Your task to perform on an android device: open device folders in google photos Image 0: 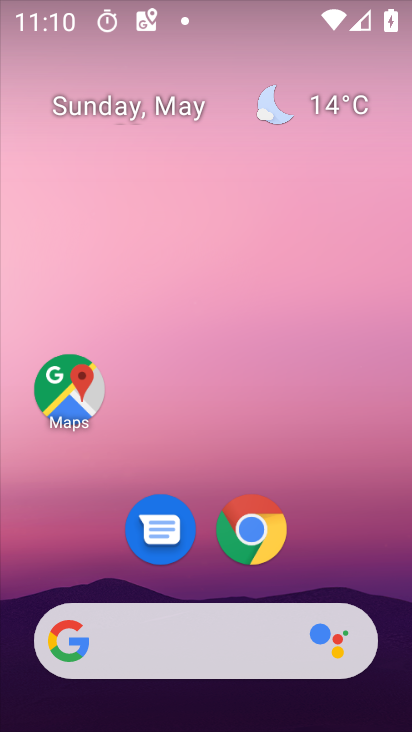
Step 0: click (406, 231)
Your task to perform on an android device: open device folders in google photos Image 1: 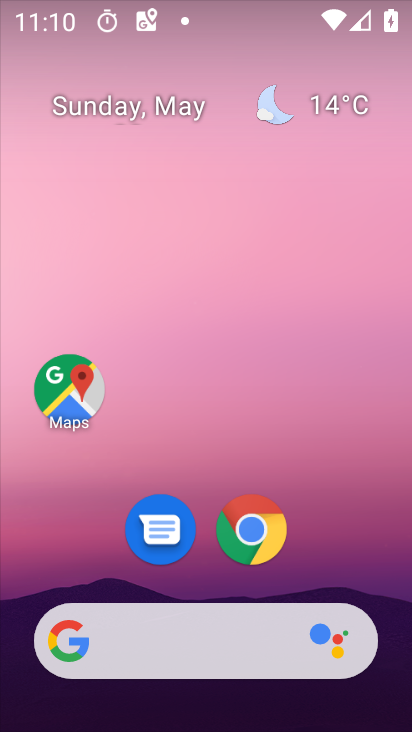
Step 1: drag from (192, 658) to (387, 0)
Your task to perform on an android device: open device folders in google photos Image 2: 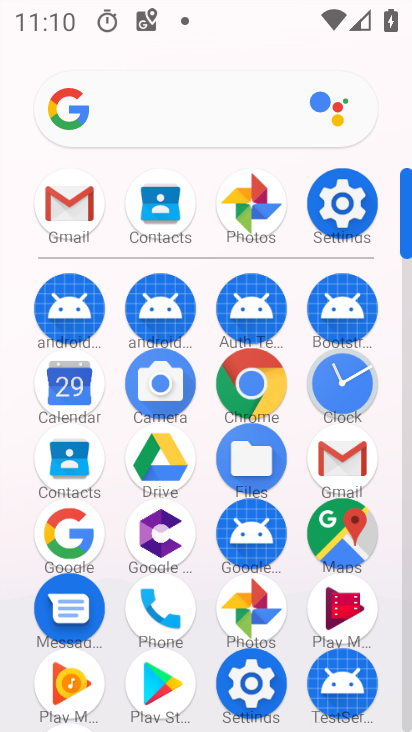
Step 2: click (246, 603)
Your task to perform on an android device: open device folders in google photos Image 3: 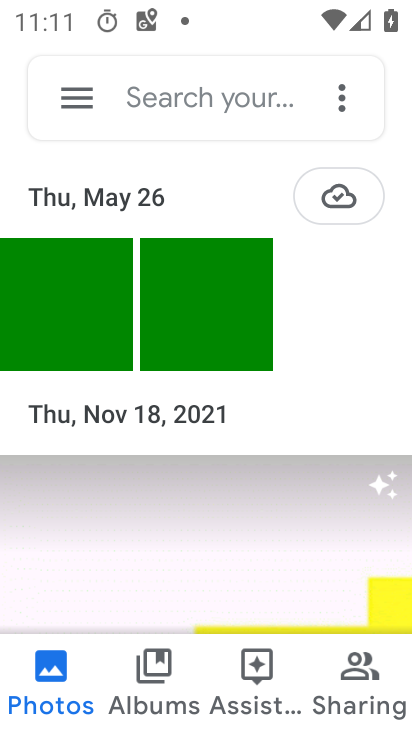
Step 3: click (166, 663)
Your task to perform on an android device: open device folders in google photos Image 4: 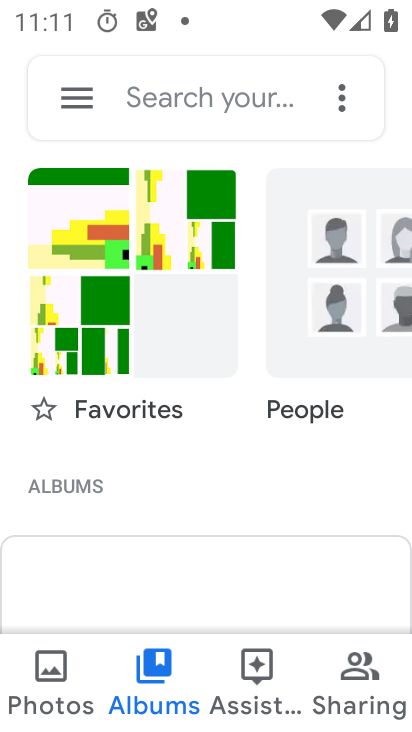
Step 4: task complete